Your task to perform on an android device: When is my next meeting? Image 0: 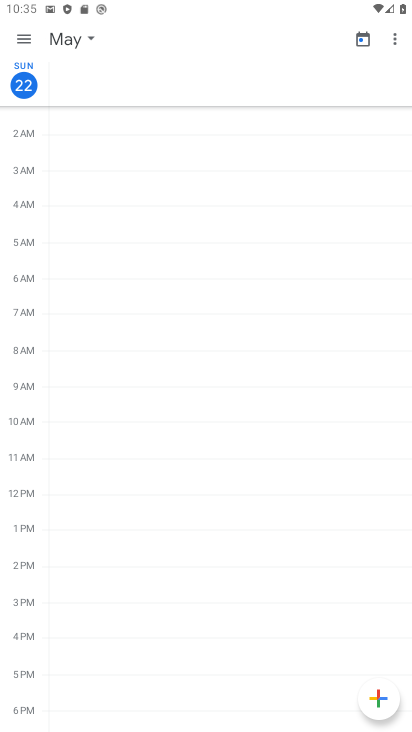
Step 0: press home button
Your task to perform on an android device: When is my next meeting? Image 1: 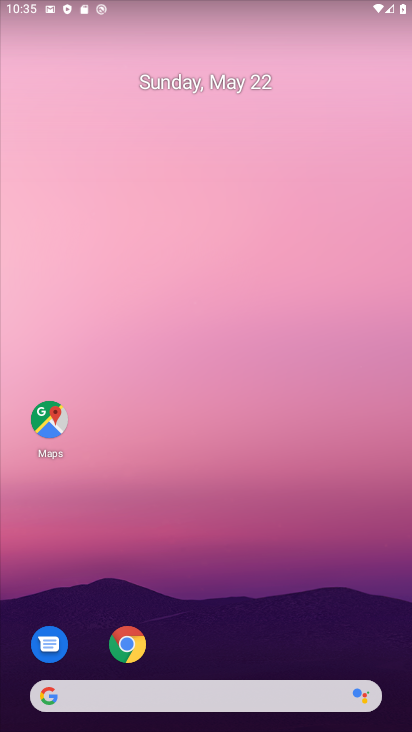
Step 1: drag from (219, 662) to (277, 40)
Your task to perform on an android device: When is my next meeting? Image 2: 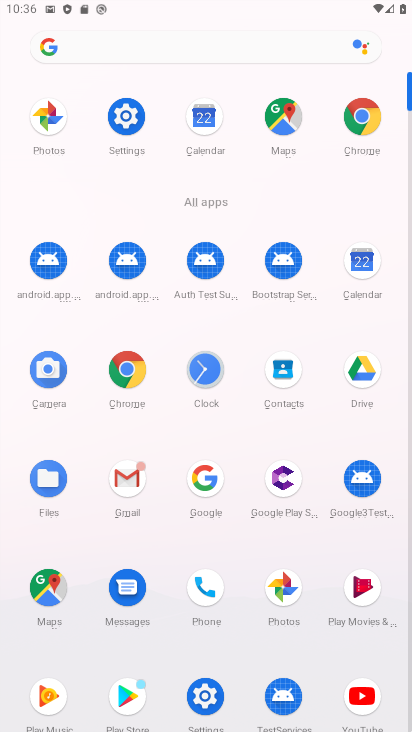
Step 2: click (360, 260)
Your task to perform on an android device: When is my next meeting? Image 3: 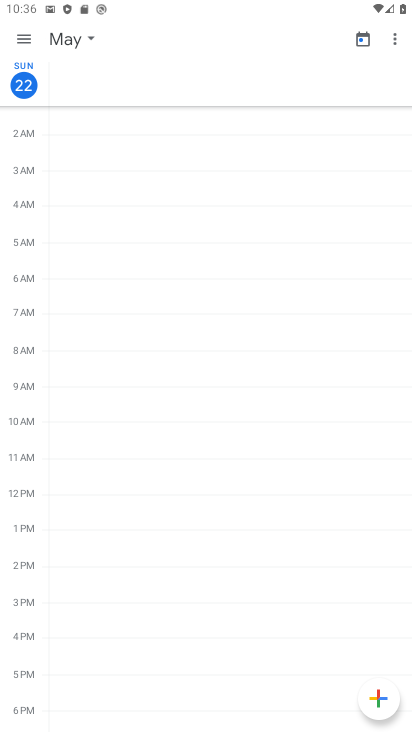
Step 3: drag from (227, 506) to (225, 228)
Your task to perform on an android device: When is my next meeting? Image 4: 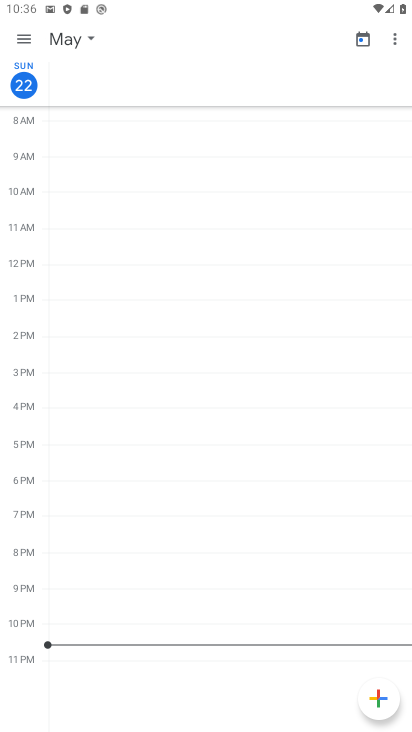
Step 4: click (35, 84)
Your task to perform on an android device: When is my next meeting? Image 5: 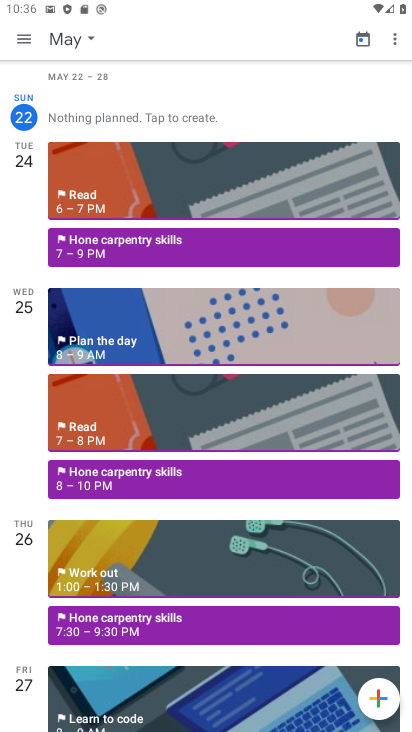
Step 5: task complete